Your task to perform on an android device: Go to Android settings Image 0: 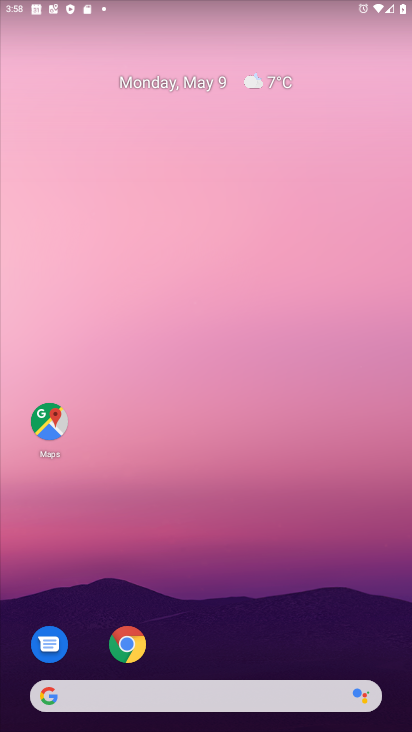
Step 0: drag from (342, 614) to (89, 176)
Your task to perform on an android device: Go to Android settings Image 1: 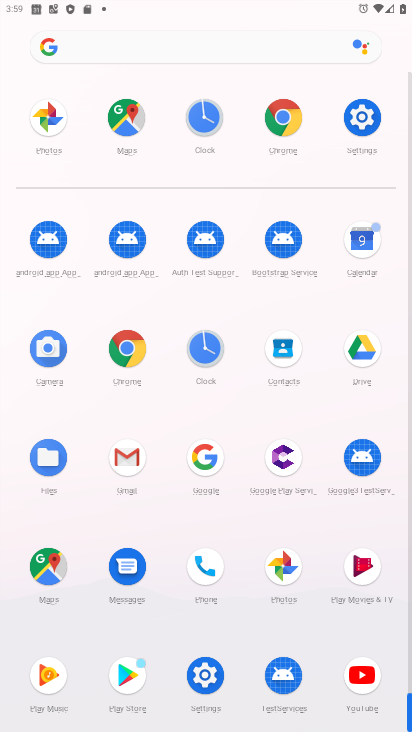
Step 1: click (350, 114)
Your task to perform on an android device: Go to Android settings Image 2: 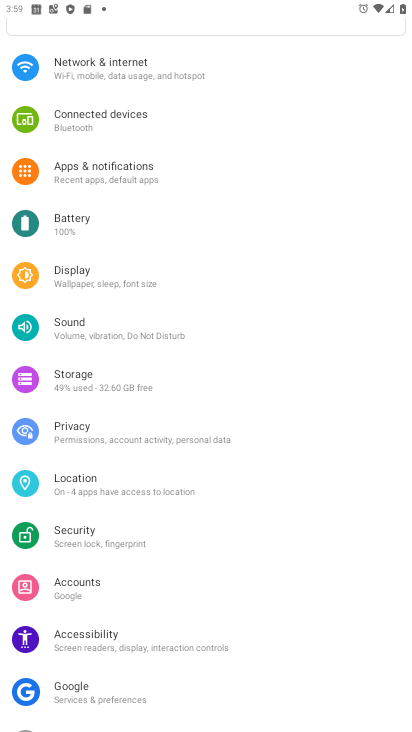
Step 2: drag from (81, 678) to (11, 54)
Your task to perform on an android device: Go to Android settings Image 3: 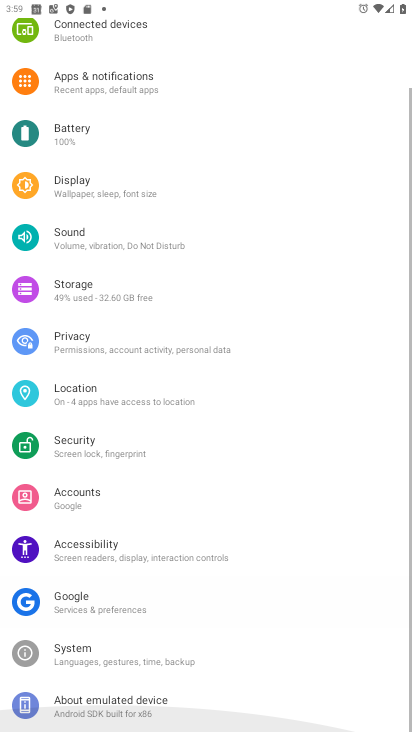
Step 3: drag from (150, 549) to (111, 302)
Your task to perform on an android device: Go to Android settings Image 4: 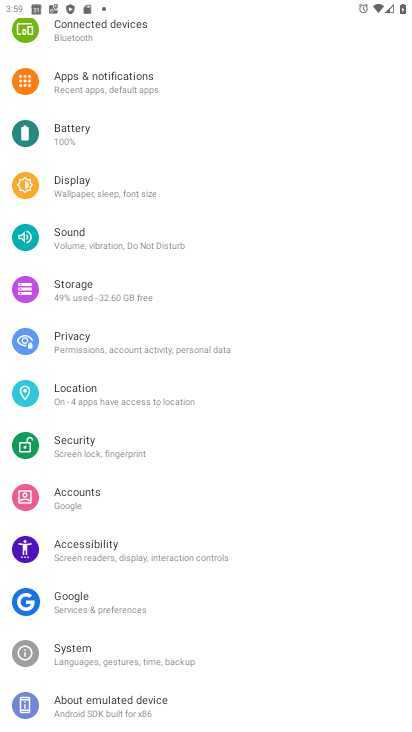
Step 4: click (97, 709)
Your task to perform on an android device: Go to Android settings Image 5: 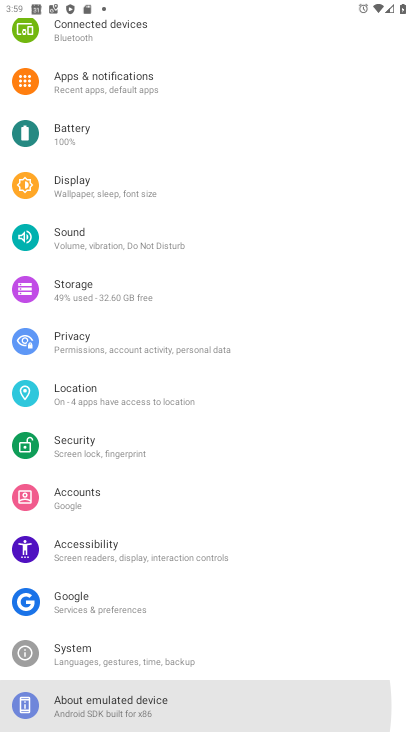
Step 5: click (90, 711)
Your task to perform on an android device: Go to Android settings Image 6: 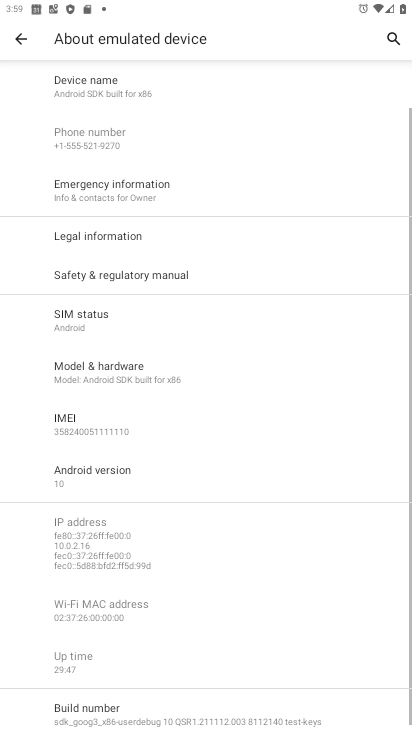
Step 6: click (243, 671)
Your task to perform on an android device: Go to Android settings Image 7: 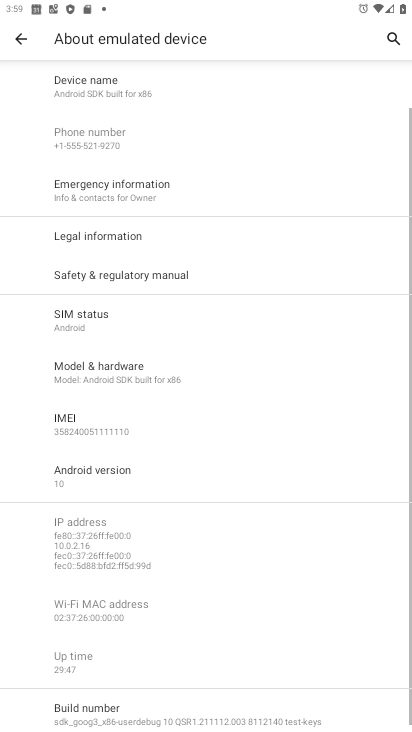
Step 7: click (243, 671)
Your task to perform on an android device: Go to Android settings Image 8: 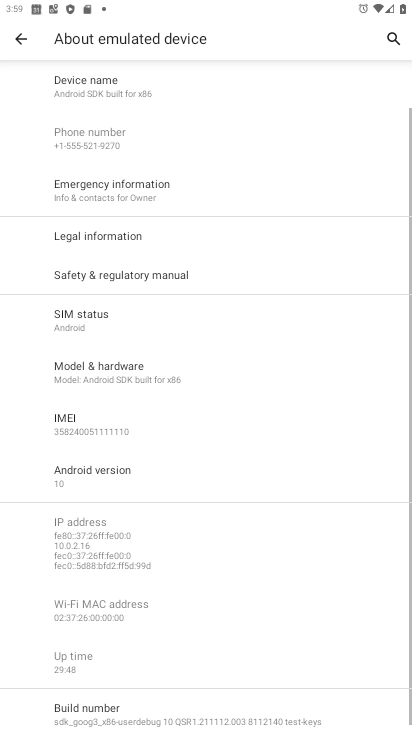
Step 8: click (243, 671)
Your task to perform on an android device: Go to Android settings Image 9: 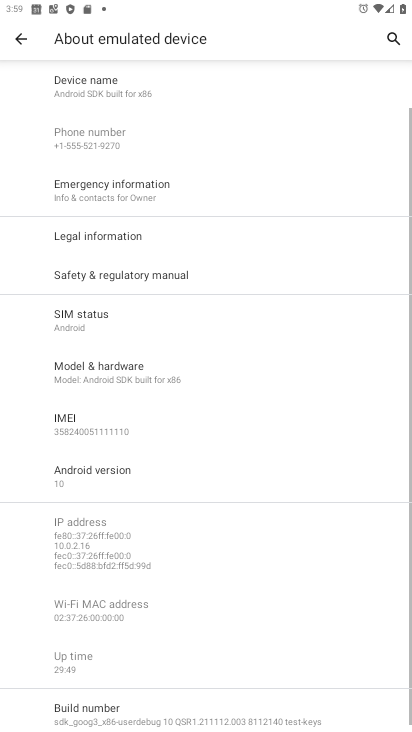
Step 9: click (243, 671)
Your task to perform on an android device: Go to Android settings Image 10: 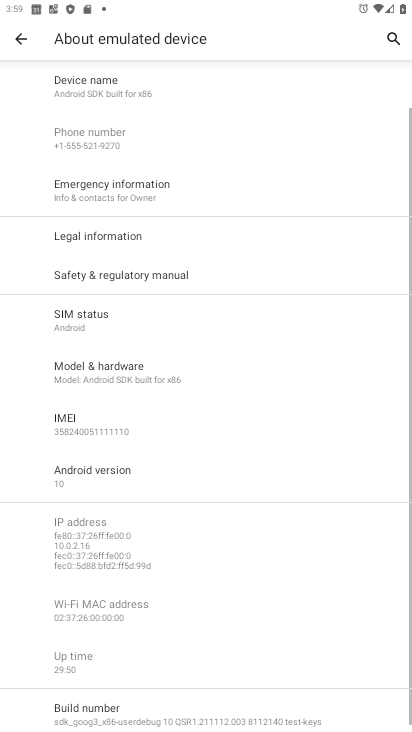
Step 10: click (243, 671)
Your task to perform on an android device: Go to Android settings Image 11: 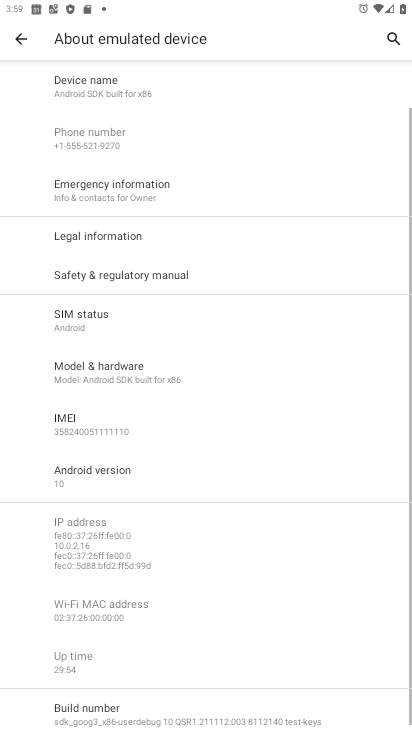
Step 11: task complete